Your task to perform on an android device: toggle data saver in the chrome app Image 0: 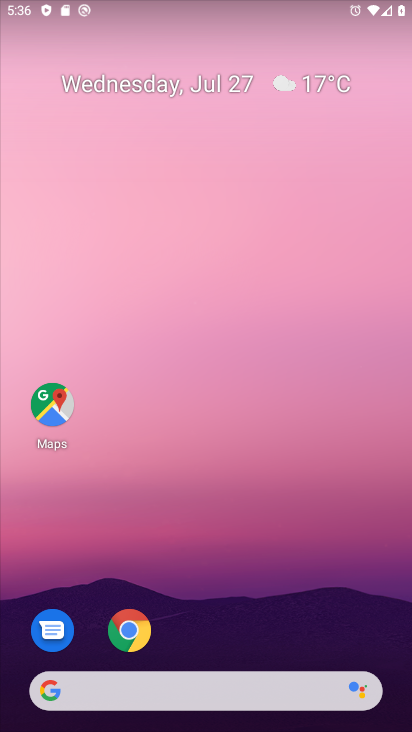
Step 0: press home button
Your task to perform on an android device: toggle data saver in the chrome app Image 1: 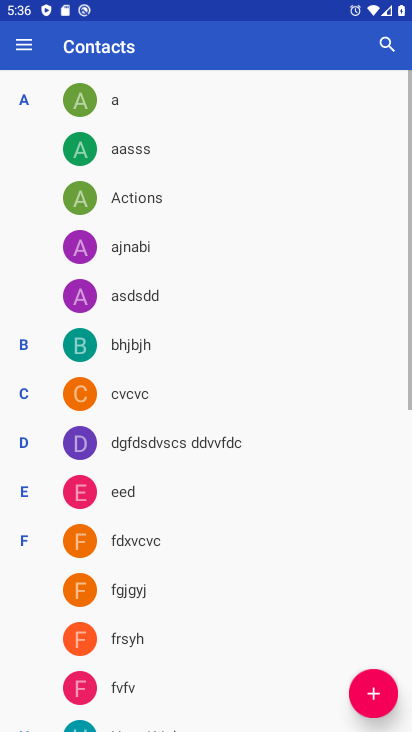
Step 1: drag from (240, 237) to (241, 118)
Your task to perform on an android device: toggle data saver in the chrome app Image 2: 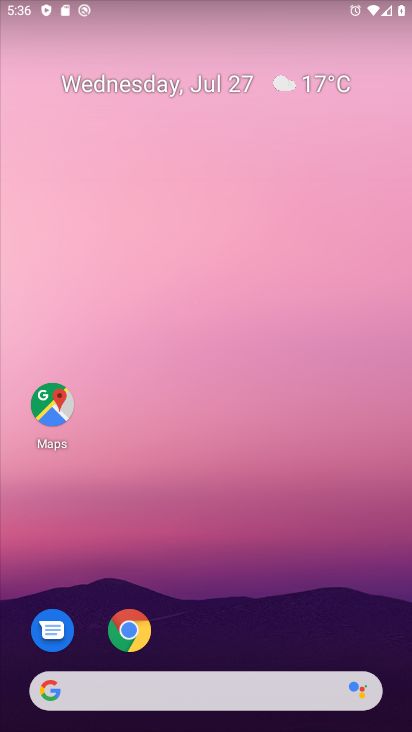
Step 2: click (122, 631)
Your task to perform on an android device: toggle data saver in the chrome app Image 3: 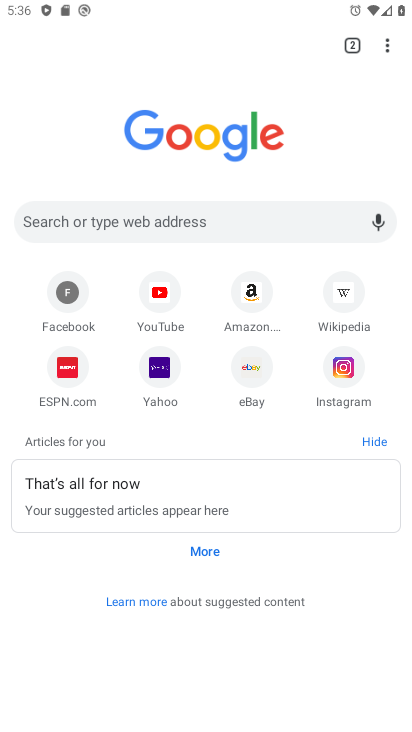
Step 3: click (385, 50)
Your task to perform on an android device: toggle data saver in the chrome app Image 4: 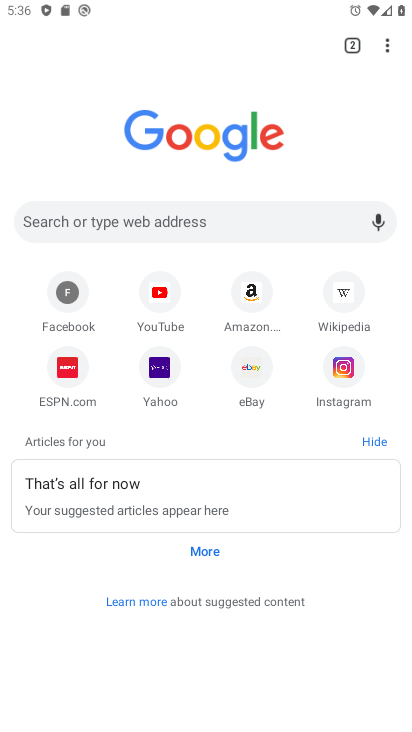
Step 4: click (383, 44)
Your task to perform on an android device: toggle data saver in the chrome app Image 5: 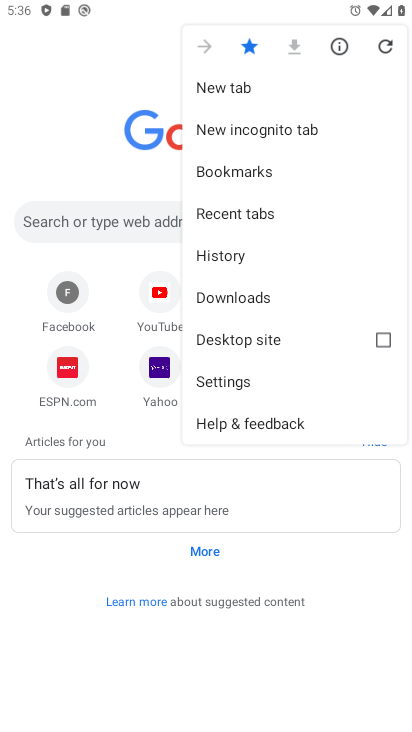
Step 5: click (254, 384)
Your task to perform on an android device: toggle data saver in the chrome app Image 6: 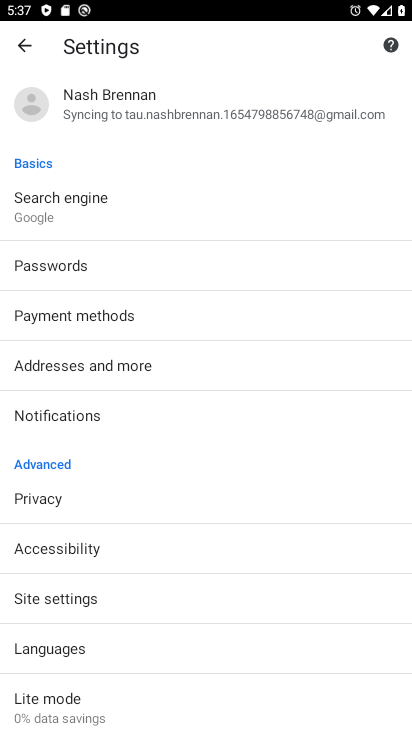
Step 6: click (94, 696)
Your task to perform on an android device: toggle data saver in the chrome app Image 7: 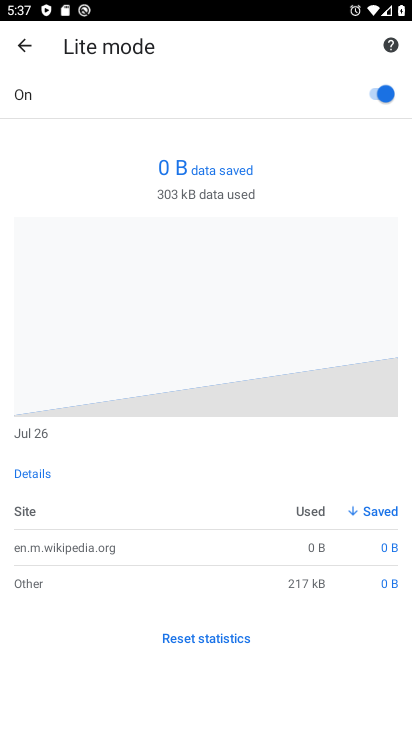
Step 7: task complete